Your task to perform on an android device: open a bookmark in the chrome app Image 0: 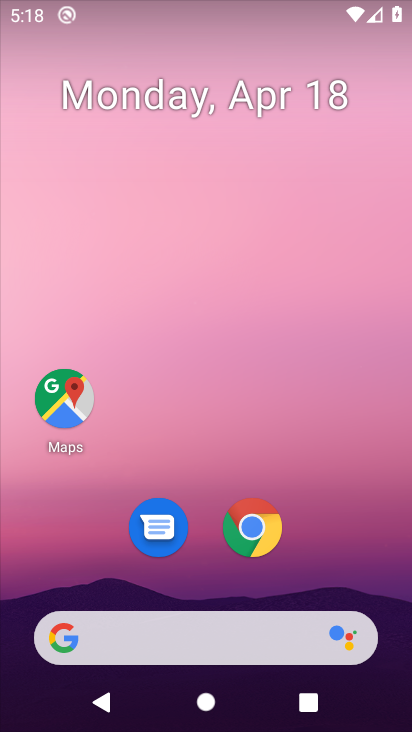
Step 0: click (254, 528)
Your task to perform on an android device: open a bookmark in the chrome app Image 1: 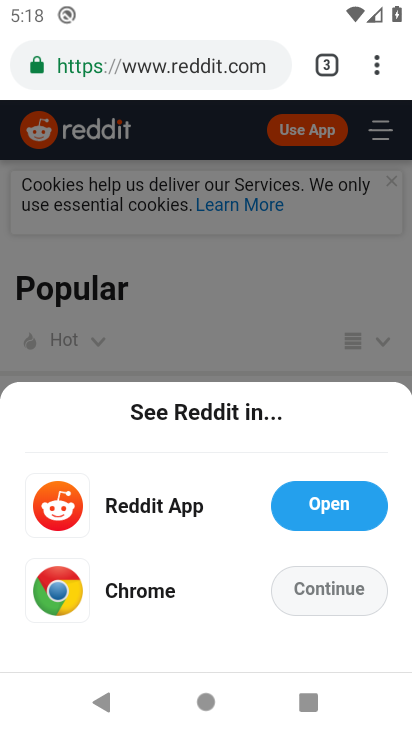
Step 1: click (377, 63)
Your task to perform on an android device: open a bookmark in the chrome app Image 2: 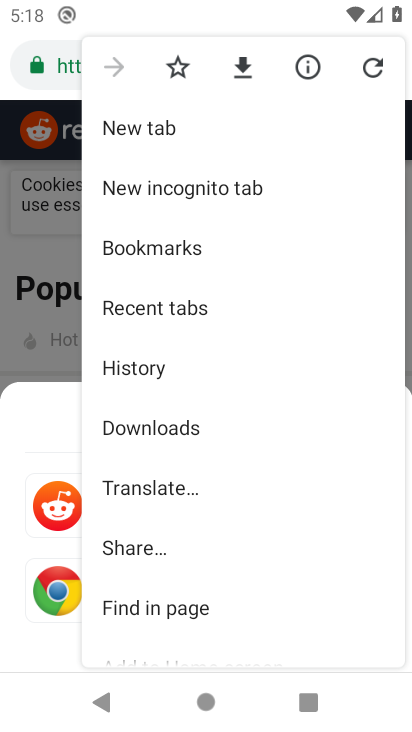
Step 2: click (182, 249)
Your task to perform on an android device: open a bookmark in the chrome app Image 3: 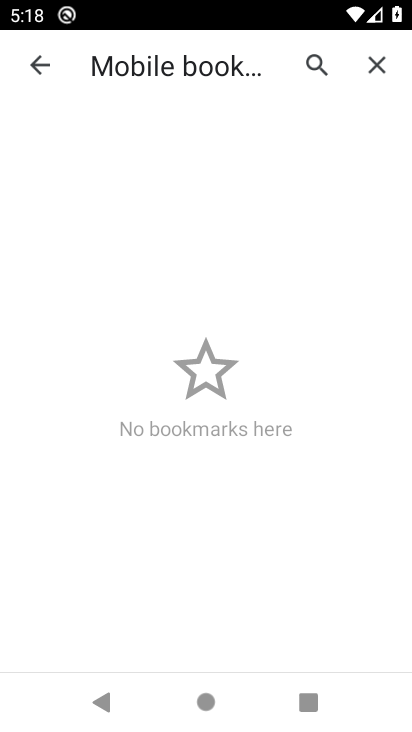
Step 3: task complete